Your task to perform on an android device: turn on priority inbox in the gmail app Image 0: 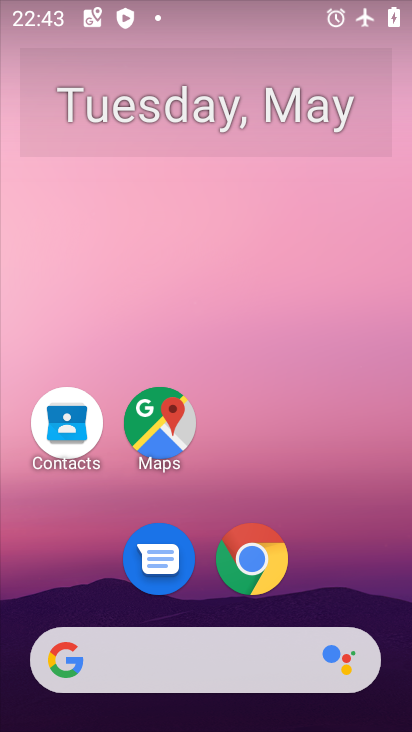
Step 0: drag from (366, 576) to (156, 56)
Your task to perform on an android device: turn on priority inbox in the gmail app Image 1: 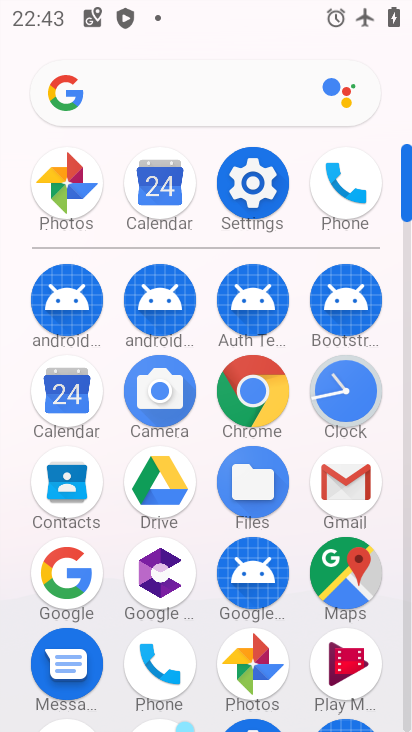
Step 1: click (349, 475)
Your task to perform on an android device: turn on priority inbox in the gmail app Image 2: 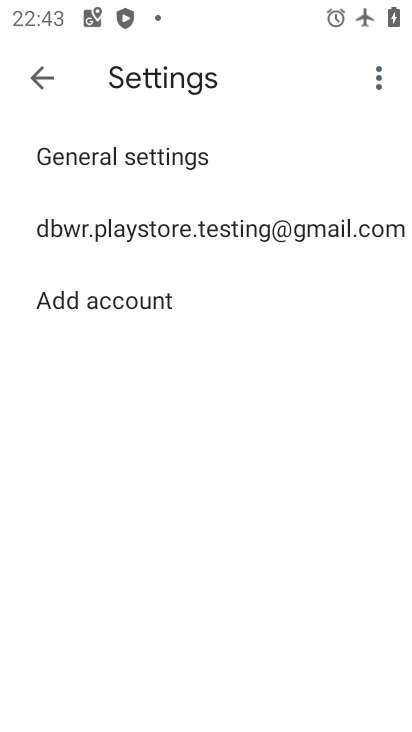
Step 2: click (38, 68)
Your task to perform on an android device: turn on priority inbox in the gmail app Image 3: 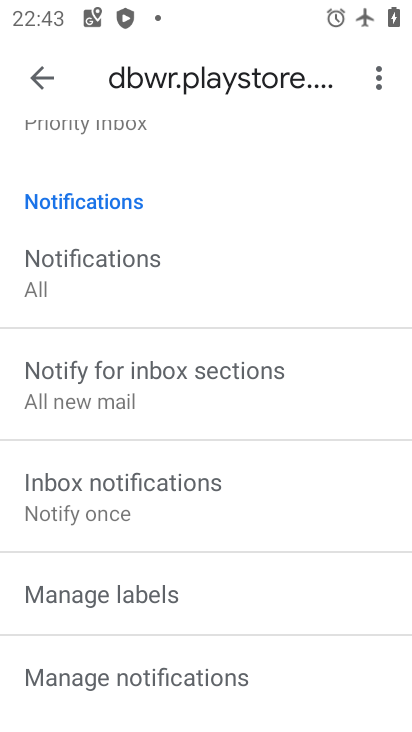
Step 3: task complete